Your task to perform on an android device: Open the calendar and show me this week's events? Image 0: 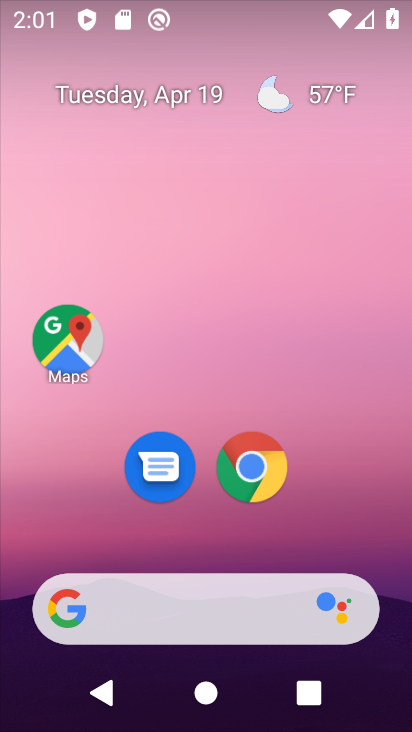
Step 0: drag from (209, 223) to (271, 23)
Your task to perform on an android device: Open the calendar and show me this week's events? Image 1: 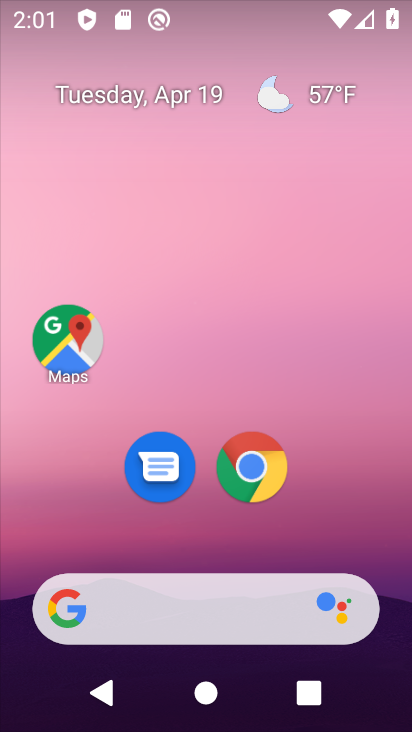
Step 1: drag from (193, 553) to (258, 7)
Your task to perform on an android device: Open the calendar and show me this week's events? Image 2: 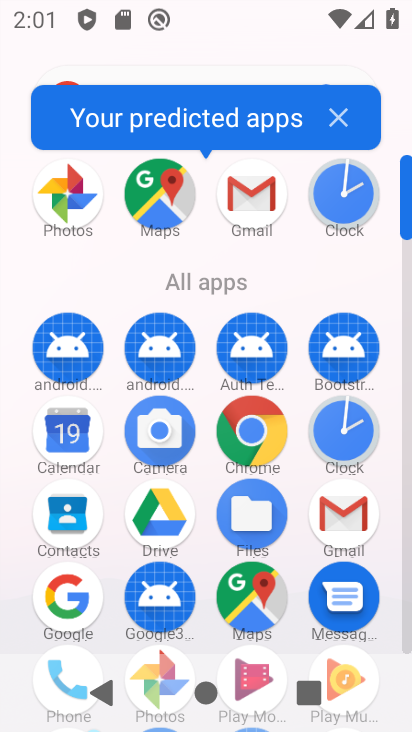
Step 2: drag from (214, 564) to (230, 118)
Your task to perform on an android device: Open the calendar and show me this week's events? Image 3: 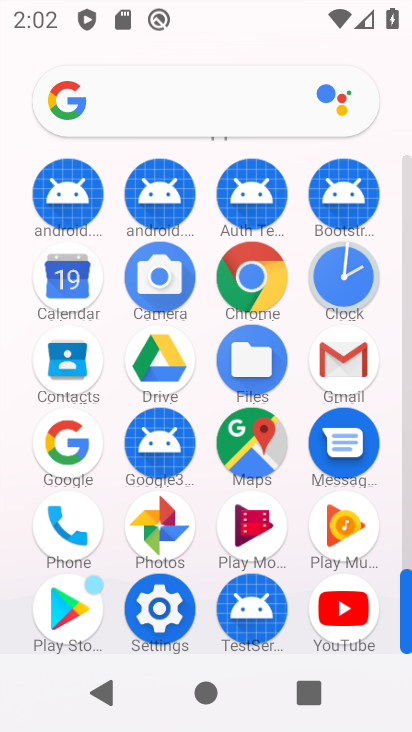
Step 3: click (77, 291)
Your task to perform on an android device: Open the calendar and show me this week's events? Image 4: 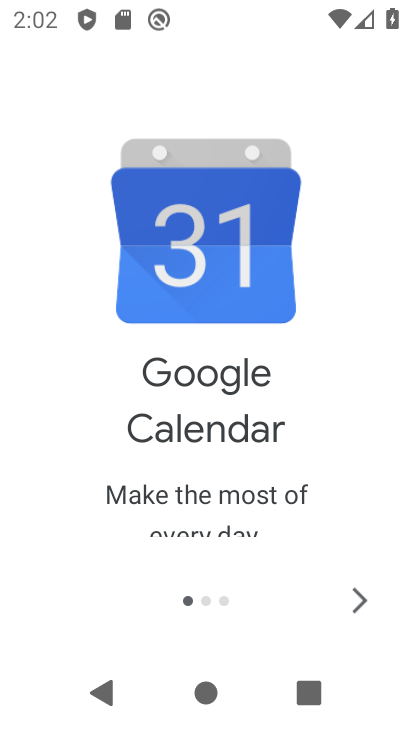
Step 4: click (356, 598)
Your task to perform on an android device: Open the calendar and show me this week's events? Image 5: 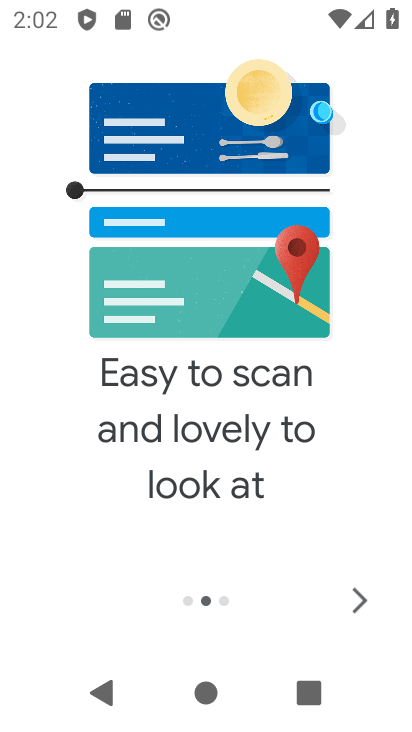
Step 5: click (357, 598)
Your task to perform on an android device: Open the calendar and show me this week's events? Image 6: 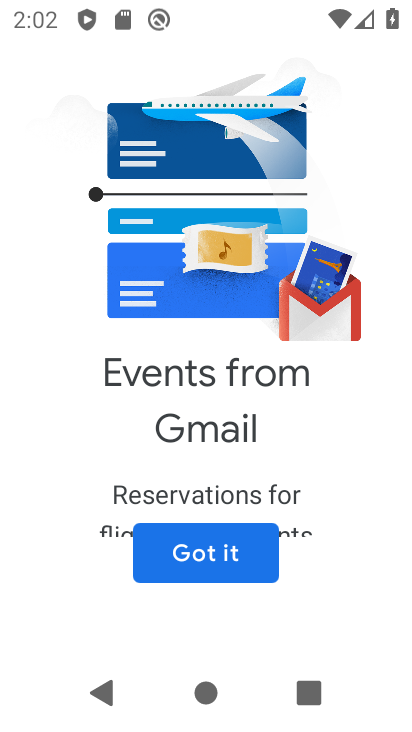
Step 6: click (357, 598)
Your task to perform on an android device: Open the calendar and show me this week's events? Image 7: 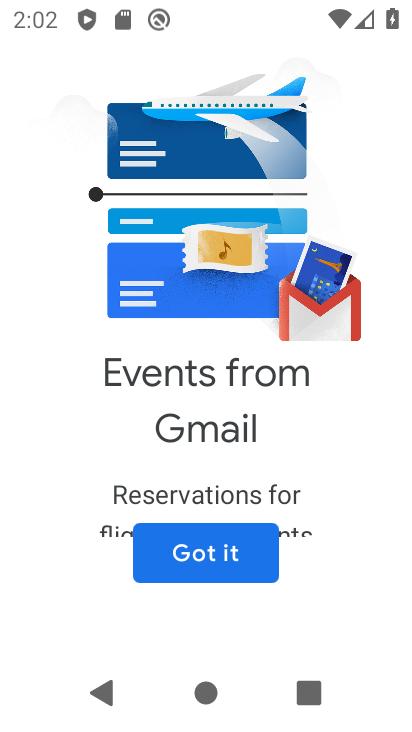
Step 7: click (229, 544)
Your task to perform on an android device: Open the calendar and show me this week's events? Image 8: 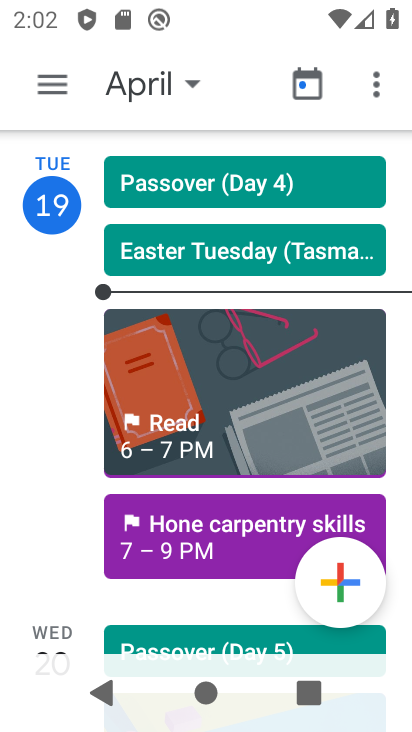
Step 8: click (47, 96)
Your task to perform on an android device: Open the calendar and show me this week's events? Image 9: 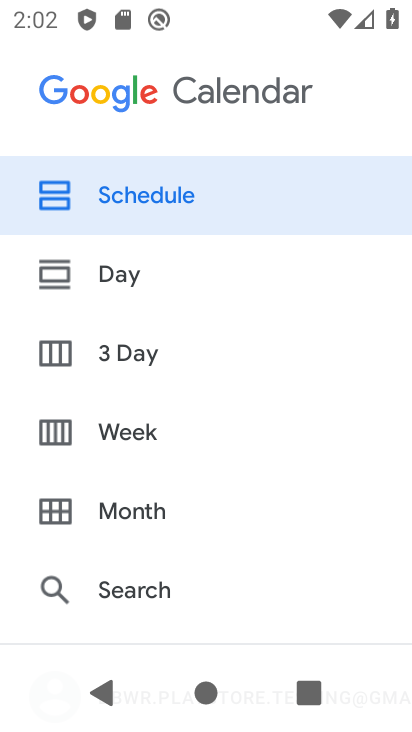
Step 9: click (128, 435)
Your task to perform on an android device: Open the calendar and show me this week's events? Image 10: 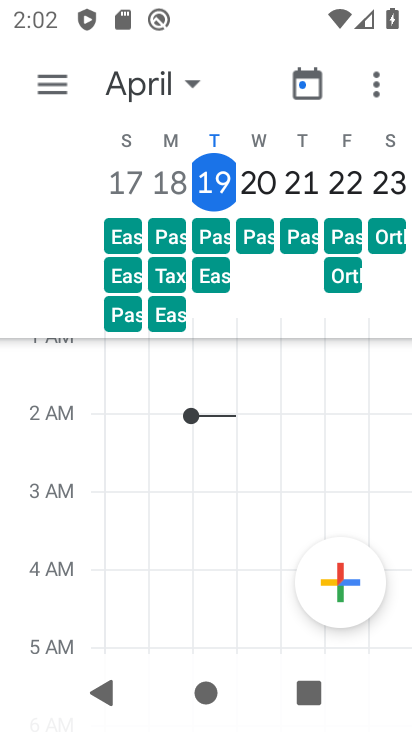
Step 10: drag from (282, 249) to (55, 214)
Your task to perform on an android device: Open the calendar and show me this week's events? Image 11: 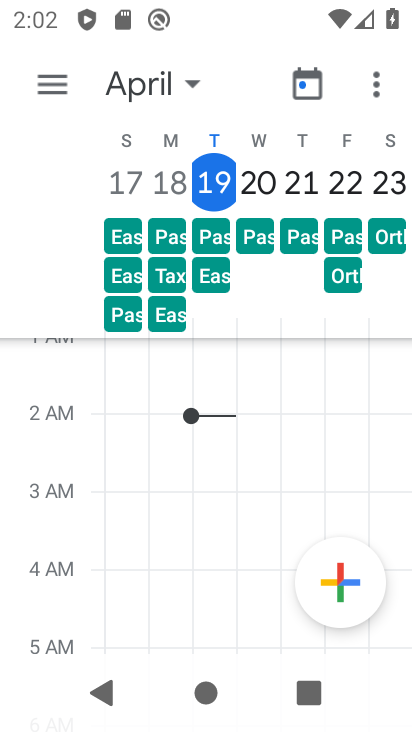
Step 11: click (132, 205)
Your task to perform on an android device: Open the calendar and show me this week's events? Image 12: 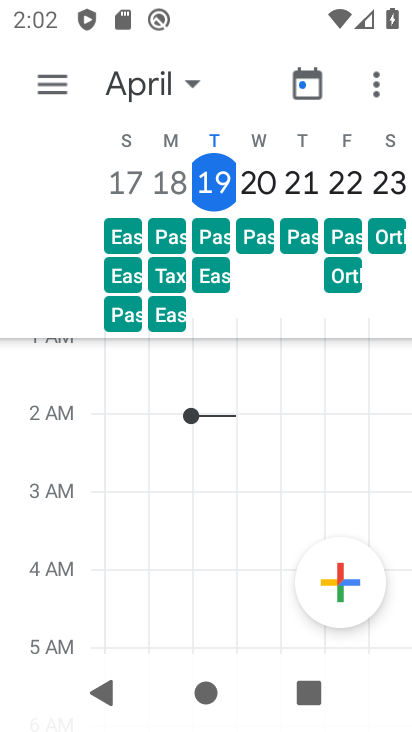
Step 12: click (53, 87)
Your task to perform on an android device: Open the calendar and show me this week's events? Image 13: 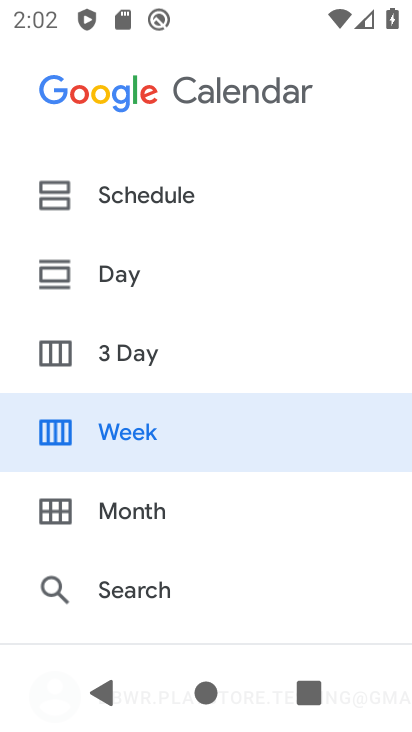
Step 13: drag from (100, 502) to (186, 105)
Your task to perform on an android device: Open the calendar and show me this week's events? Image 14: 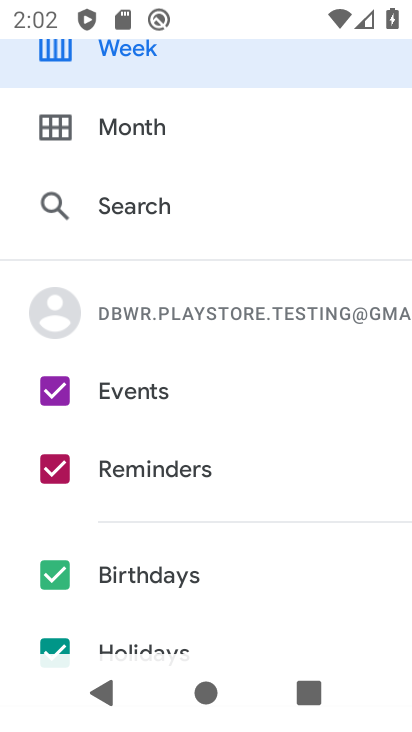
Step 14: click (62, 475)
Your task to perform on an android device: Open the calendar and show me this week's events? Image 15: 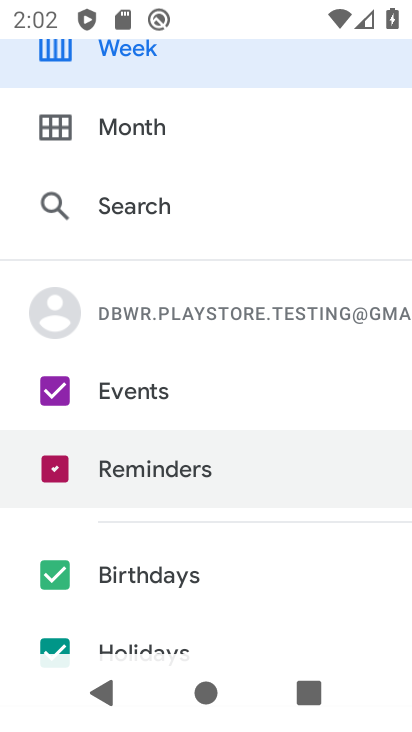
Step 15: click (60, 563)
Your task to perform on an android device: Open the calendar and show me this week's events? Image 16: 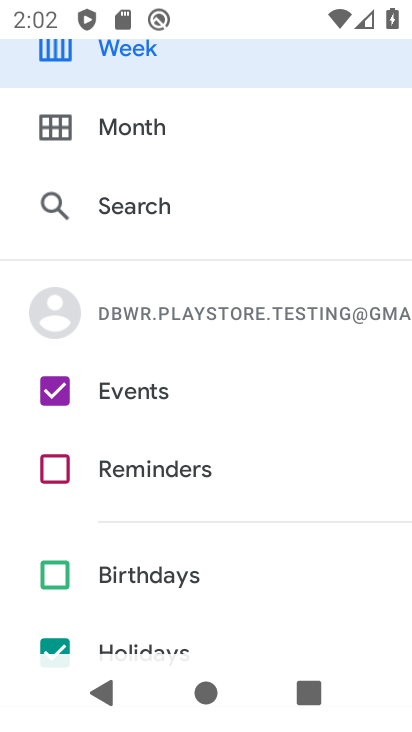
Step 16: drag from (83, 600) to (171, 256)
Your task to perform on an android device: Open the calendar and show me this week's events? Image 17: 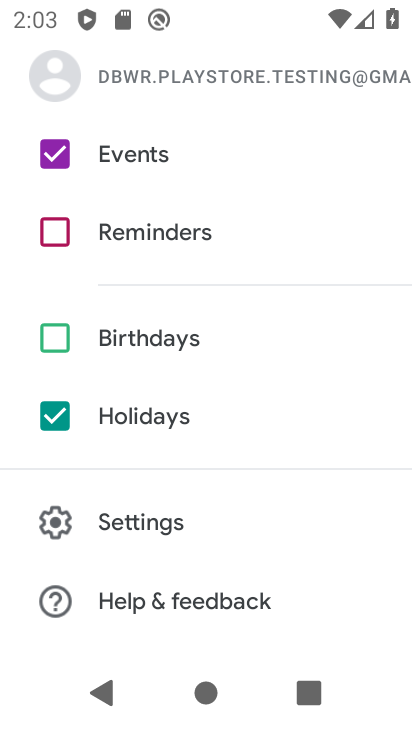
Step 17: click (59, 425)
Your task to perform on an android device: Open the calendar and show me this week's events? Image 18: 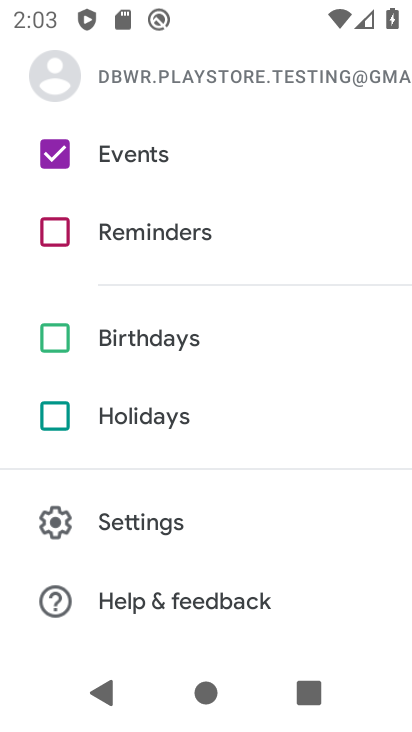
Step 18: drag from (173, 153) to (122, 437)
Your task to perform on an android device: Open the calendar and show me this week's events? Image 19: 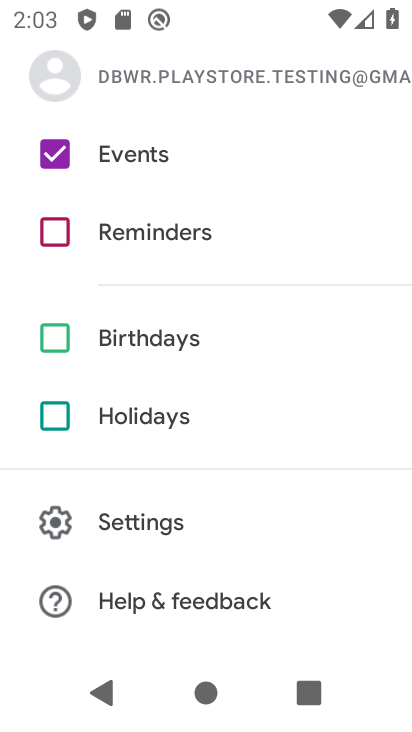
Step 19: drag from (197, 191) to (178, 468)
Your task to perform on an android device: Open the calendar and show me this week's events? Image 20: 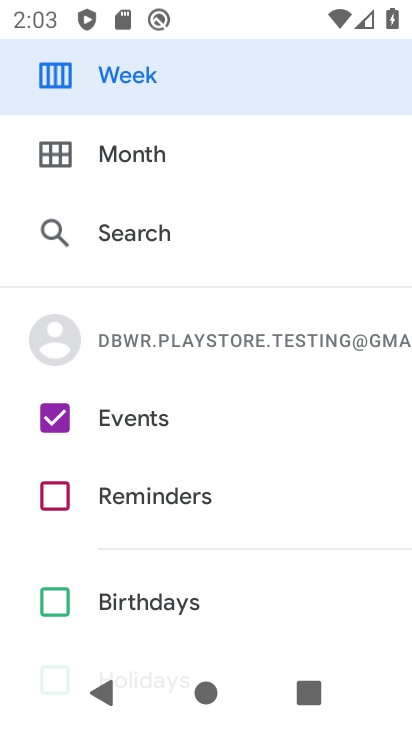
Step 20: click (105, 100)
Your task to perform on an android device: Open the calendar and show me this week's events? Image 21: 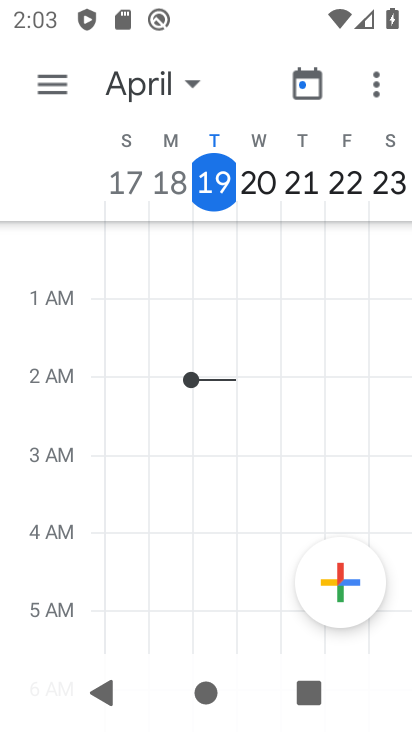
Step 21: task complete